Your task to perform on an android device: turn on priority inbox in the gmail app Image 0: 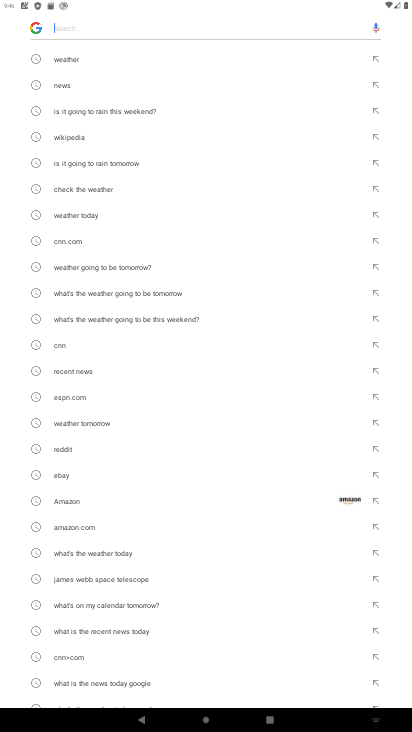
Step 0: press back button
Your task to perform on an android device: turn on priority inbox in the gmail app Image 1: 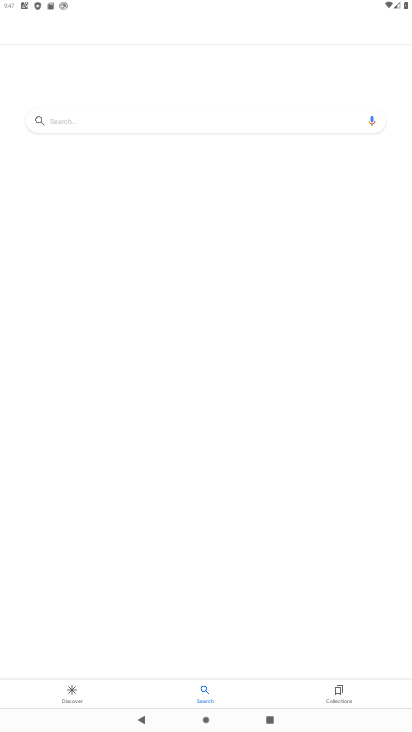
Step 1: task complete